Your task to perform on an android device: open the mobile data screen to see how much data has been used Image 0: 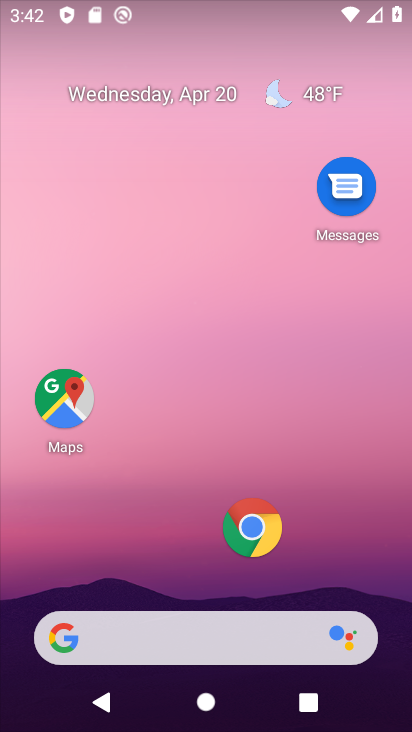
Step 0: drag from (174, 436) to (268, 15)
Your task to perform on an android device: open the mobile data screen to see how much data has been used Image 1: 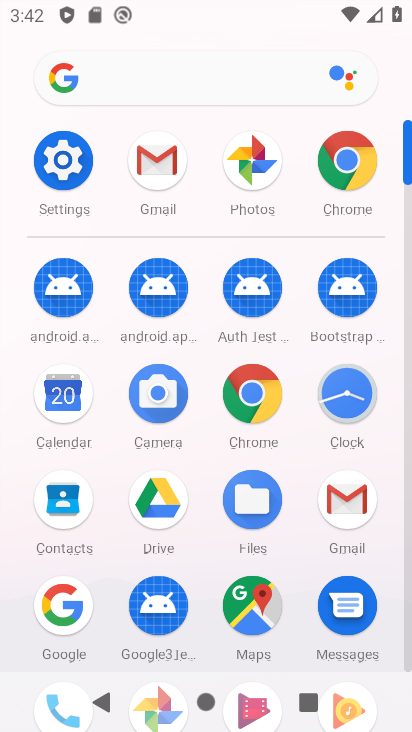
Step 1: click (62, 158)
Your task to perform on an android device: open the mobile data screen to see how much data has been used Image 2: 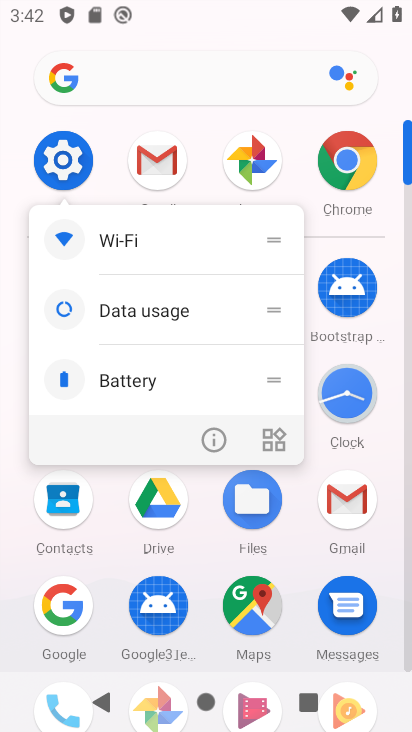
Step 2: click (62, 159)
Your task to perform on an android device: open the mobile data screen to see how much data has been used Image 3: 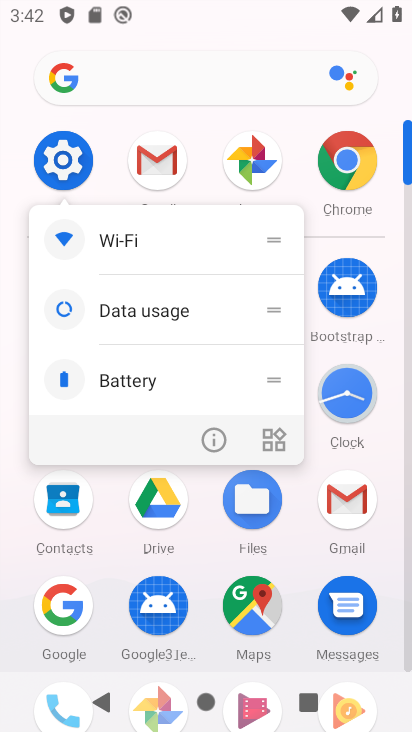
Step 3: click (58, 163)
Your task to perform on an android device: open the mobile data screen to see how much data has been used Image 4: 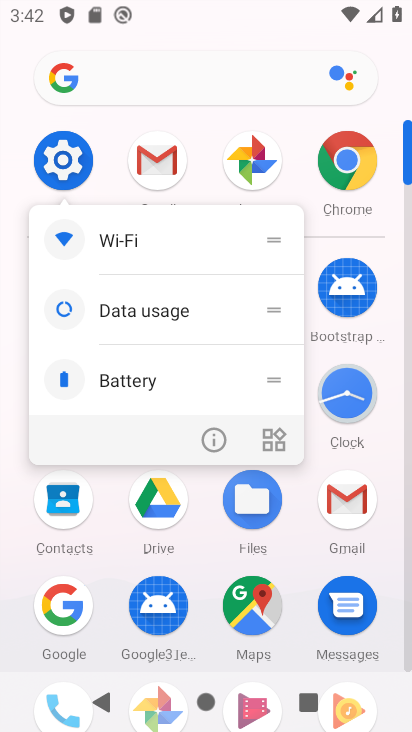
Step 4: click (52, 170)
Your task to perform on an android device: open the mobile data screen to see how much data has been used Image 5: 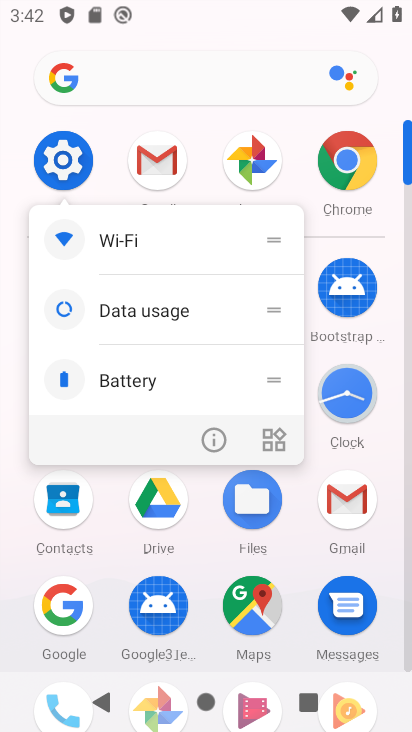
Step 5: click (69, 162)
Your task to perform on an android device: open the mobile data screen to see how much data has been used Image 6: 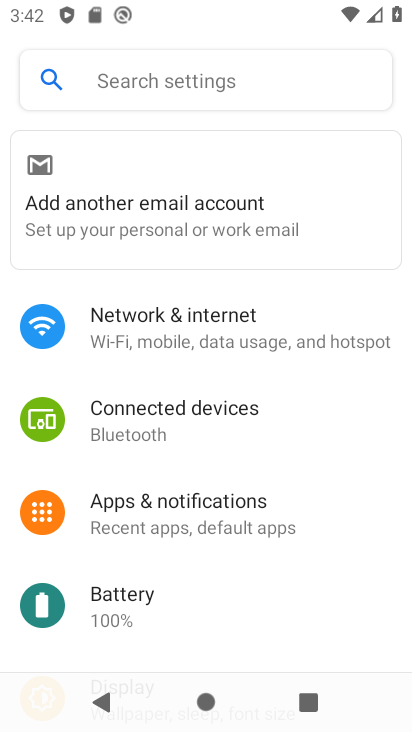
Step 6: click (202, 330)
Your task to perform on an android device: open the mobile data screen to see how much data has been used Image 7: 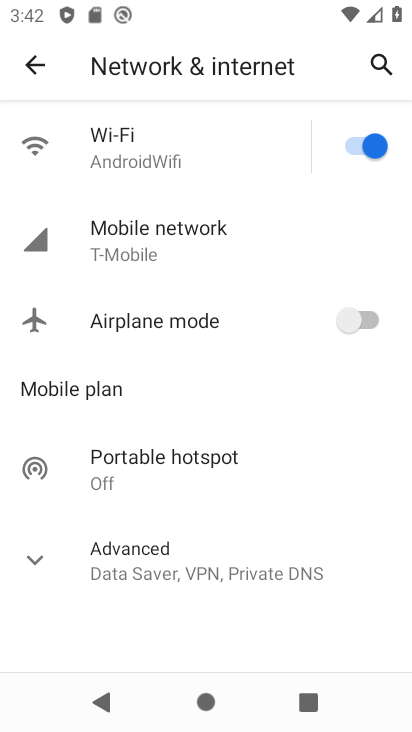
Step 7: click (164, 241)
Your task to perform on an android device: open the mobile data screen to see how much data has been used Image 8: 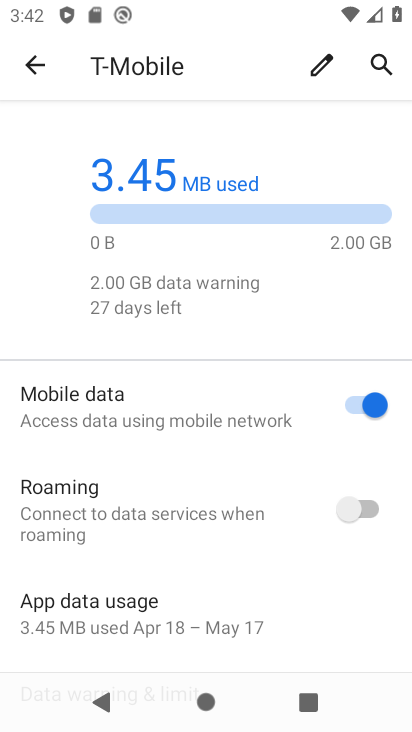
Step 8: drag from (207, 608) to (297, 170)
Your task to perform on an android device: open the mobile data screen to see how much data has been used Image 9: 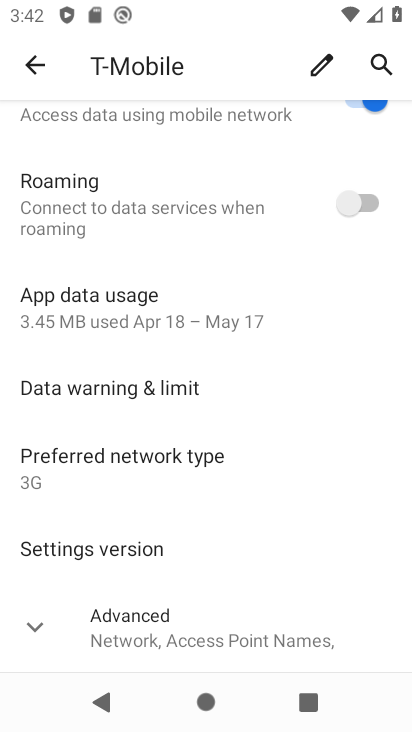
Step 9: drag from (236, 182) to (217, 522)
Your task to perform on an android device: open the mobile data screen to see how much data has been used Image 10: 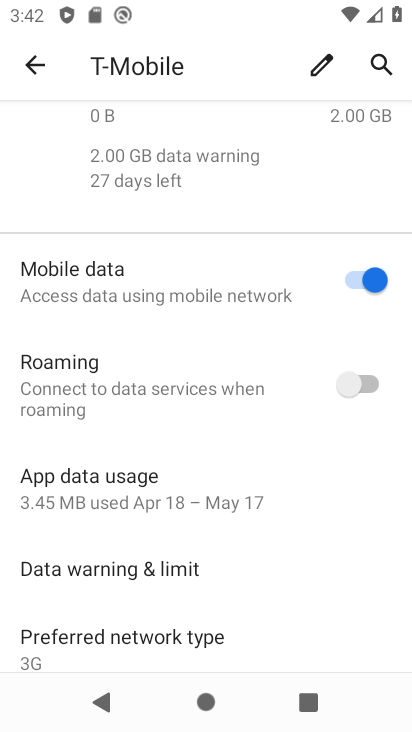
Step 10: click (148, 474)
Your task to perform on an android device: open the mobile data screen to see how much data has been used Image 11: 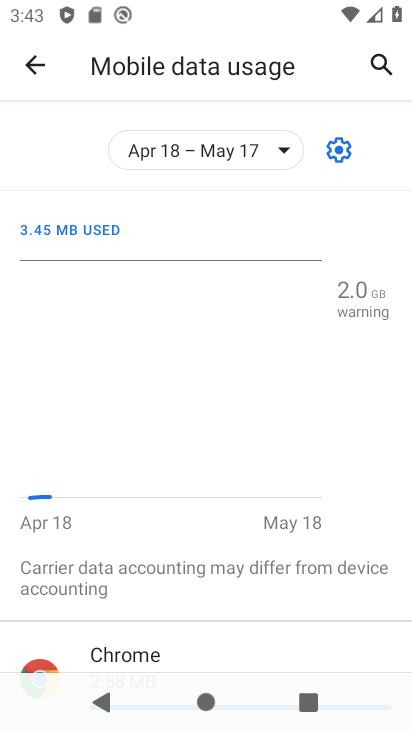
Step 11: task complete